Your task to perform on an android device: Toggle the flashlight Image 0: 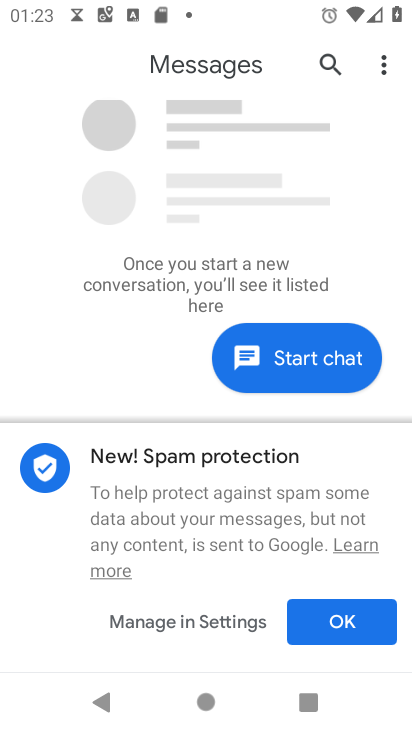
Step 0: press home button
Your task to perform on an android device: Toggle the flashlight Image 1: 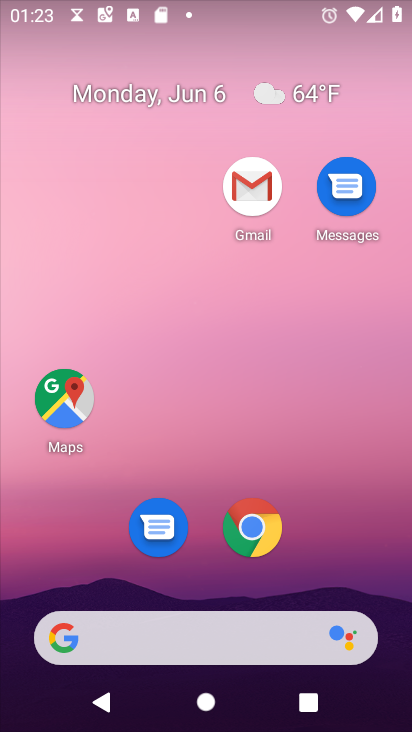
Step 1: drag from (331, 551) to (288, 39)
Your task to perform on an android device: Toggle the flashlight Image 2: 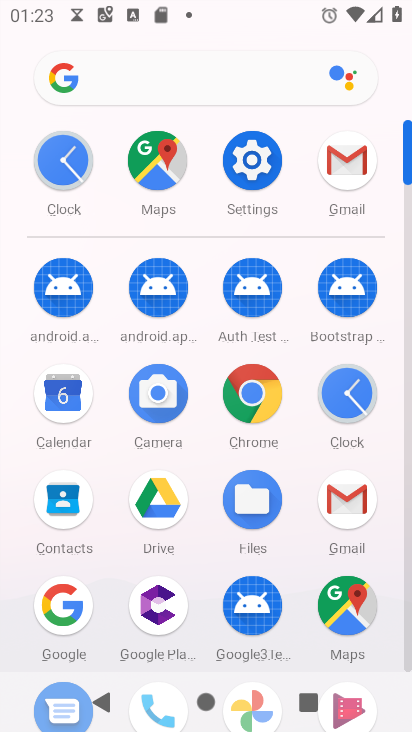
Step 2: click (256, 163)
Your task to perform on an android device: Toggle the flashlight Image 3: 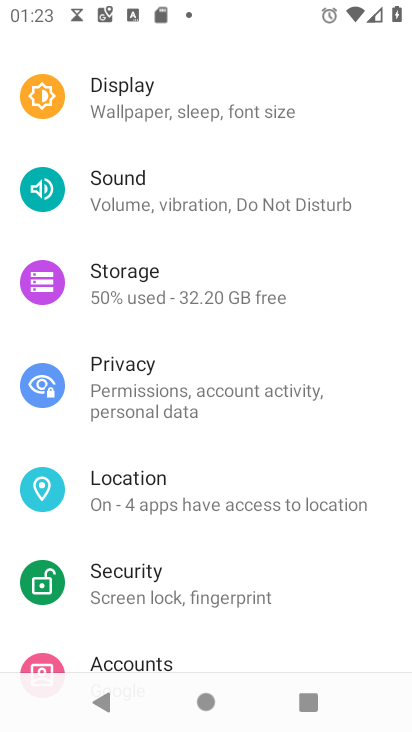
Step 3: drag from (283, 187) to (274, 485)
Your task to perform on an android device: Toggle the flashlight Image 4: 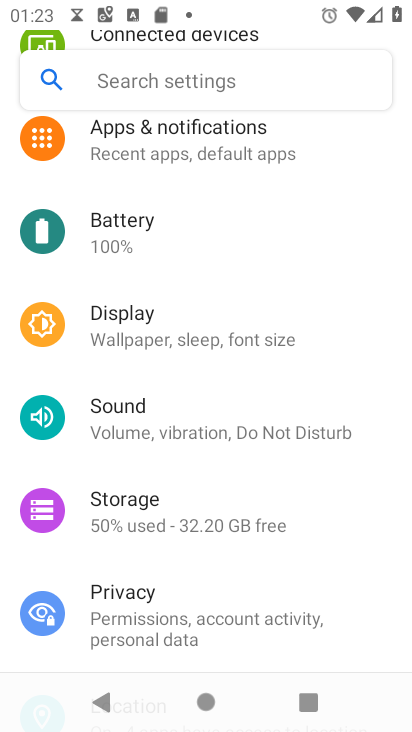
Step 4: click (225, 149)
Your task to perform on an android device: Toggle the flashlight Image 5: 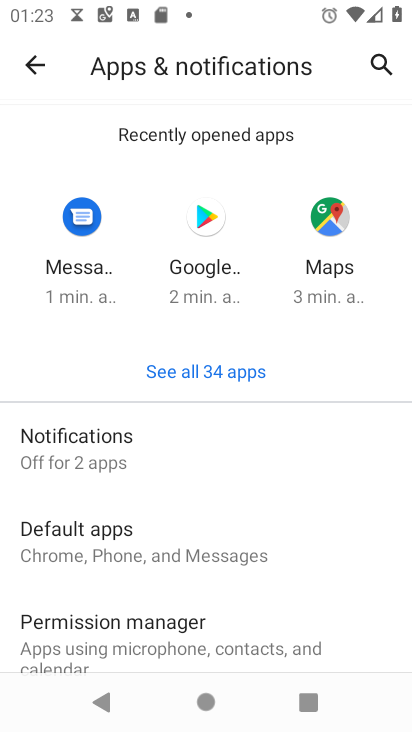
Step 5: drag from (235, 585) to (292, 133)
Your task to perform on an android device: Toggle the flashlight Image 6: 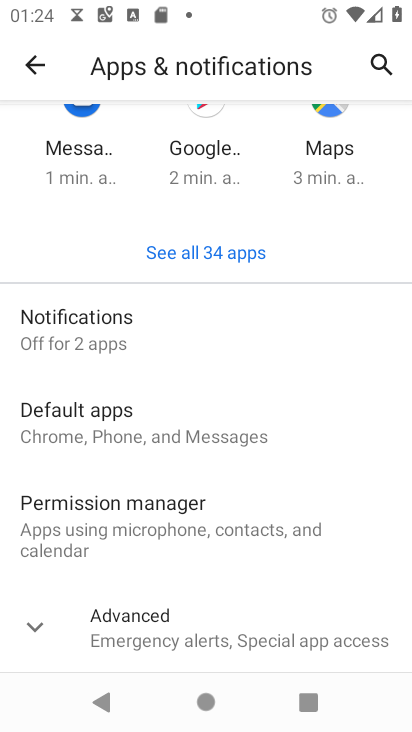
Step 6: click (257, 636)
Your task to perform on an android device: Toggle the flashlight Image 7: 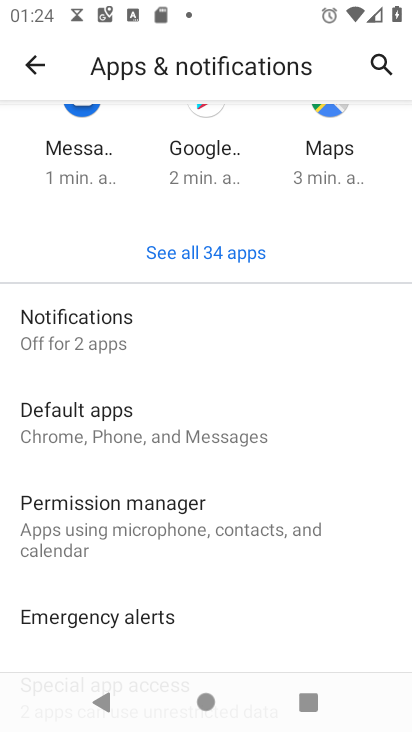
Step 7: drag from (266, 589) to (293, 154)
Your task to perform on an android device: Toggle the flashlight Image 8: 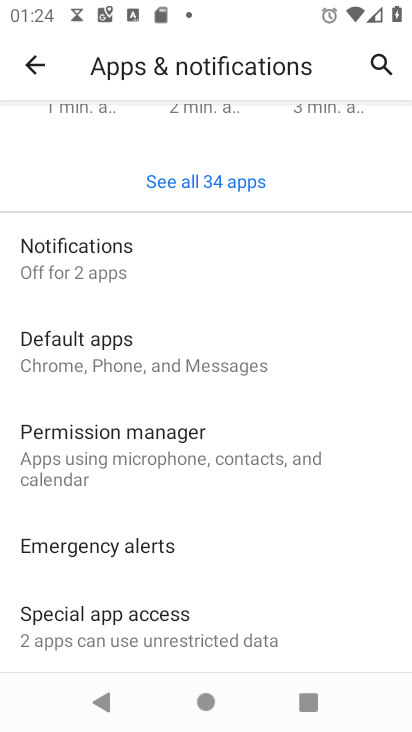
Step 8: click (176, 619)
Your task to perform on an android device: Toggle the flashlight Image 9: 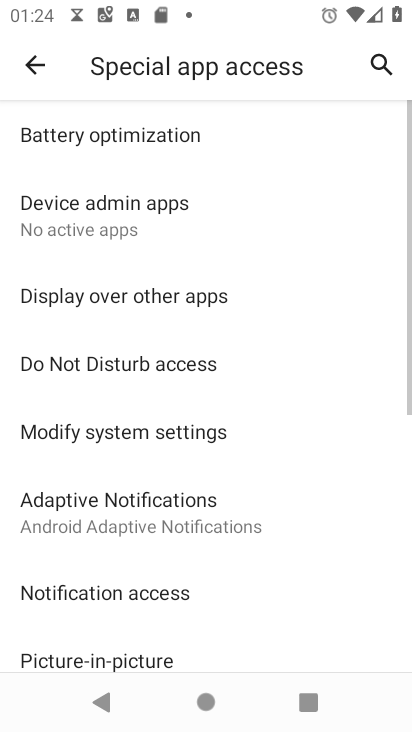
Step 9: task complete